Your task to perform on an android device: Go to calendar. Show me events next week Image 0: 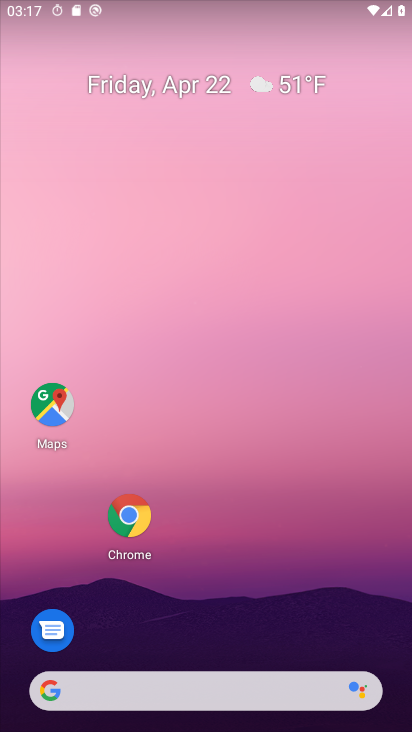
Step 0: click (381, 247)
Your task to perform on an android device: Go to calendar. Show me events next week Image 1: 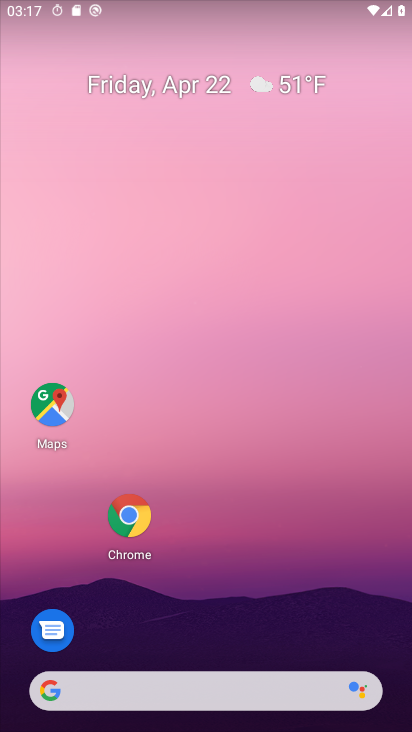
Step 1: drag from (375, 217) to (373, 155)
Your task to perform on an android device: Go to calendar. Show me events next week Image 2: 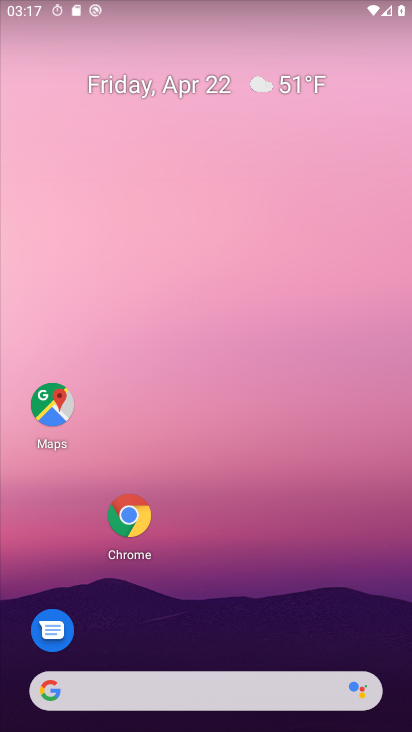
Step 2: click (386, 224)
Your task to perform on an android device: Go to calendar. Show me events next week Image 3: 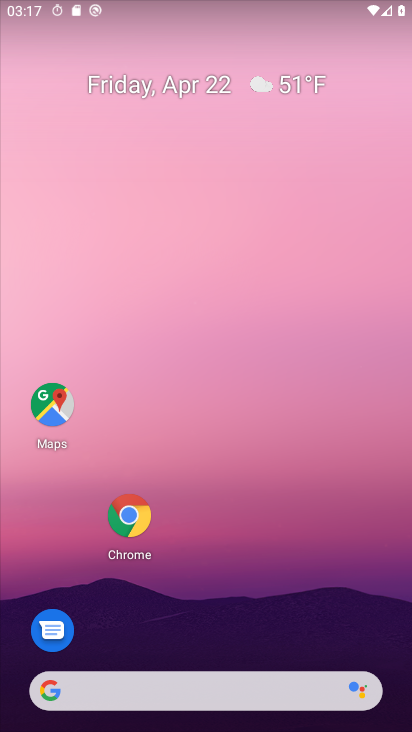
Step 3: drag from (392, 498) to (346, 56)
Your task to perform on an android device: Go to calendar. Show me events next week Image 4: 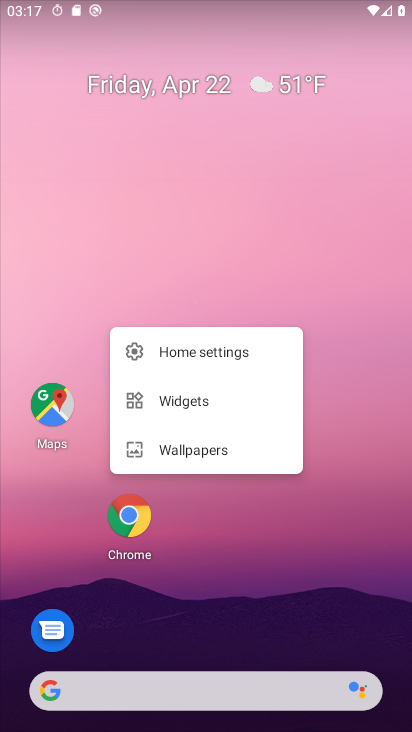
Step 4: click (380, 558)
Your task to perform on an android device: Go to calendar. Show me events next week Image 5: 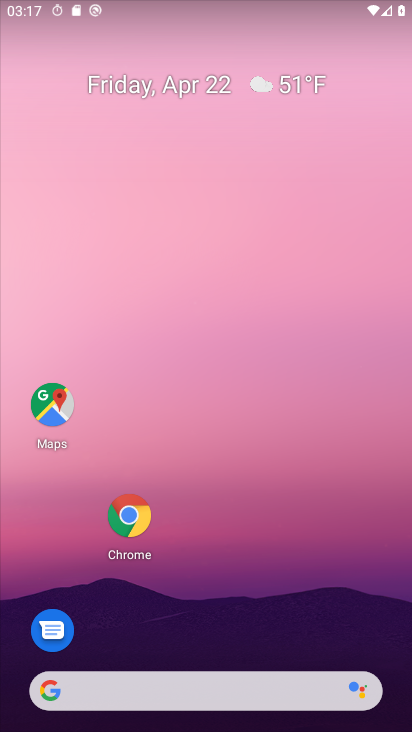
Step 5: drag from (391, 312) to (386, 61)
Your task to perform on an android device: Go to calendar. Show me events next week Image 6: 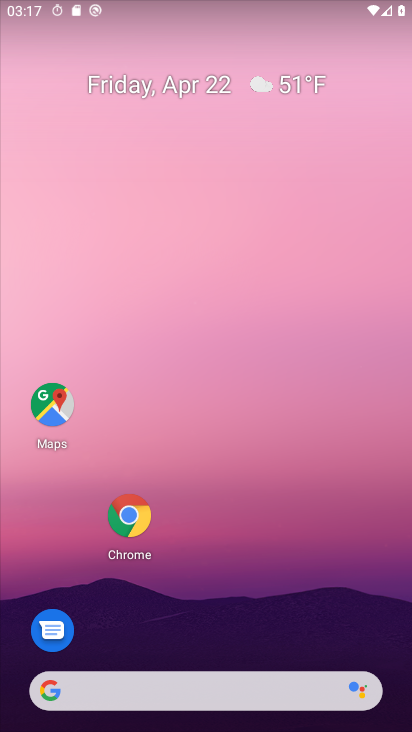
Step 6: drag from (404, 373) to (385, 42)
Your task to perform on an android device: Go to calendar. Show me events next week Image 7: 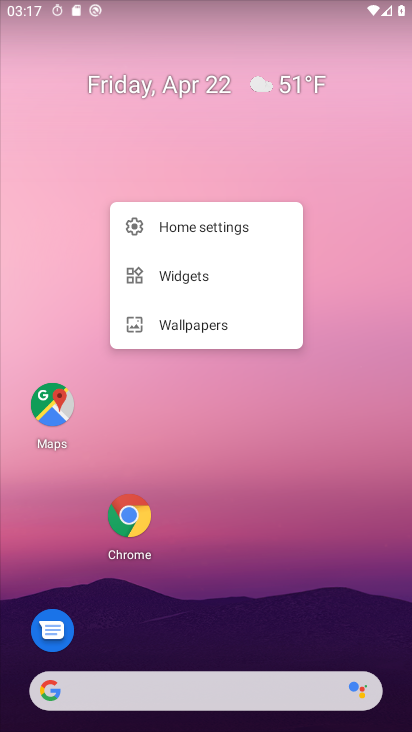
Step 7: drag from (393, 600) to (397, 88)
Your task to perform on an android device: Go to calendar. Show me events next week Image 8: 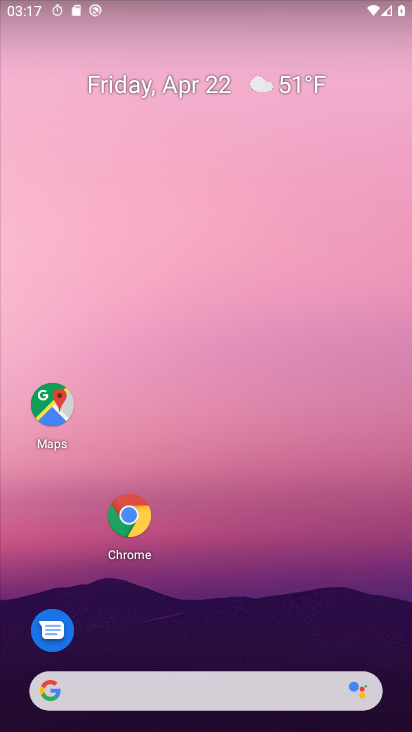
Step 8: drag from (396, 614) to (357, 46)
Your task to perform on an android device: Go to calendar. Show me events next week Image 9: 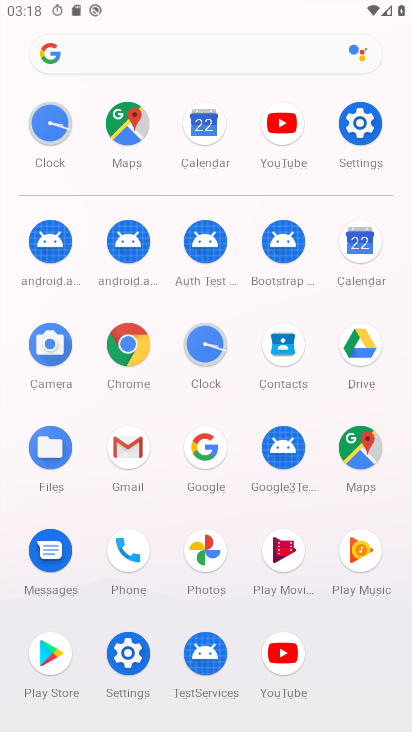
Step 9: click (342, 247)
Your task to perform on an android device: Go to calendar. Show me events next week Image 10: 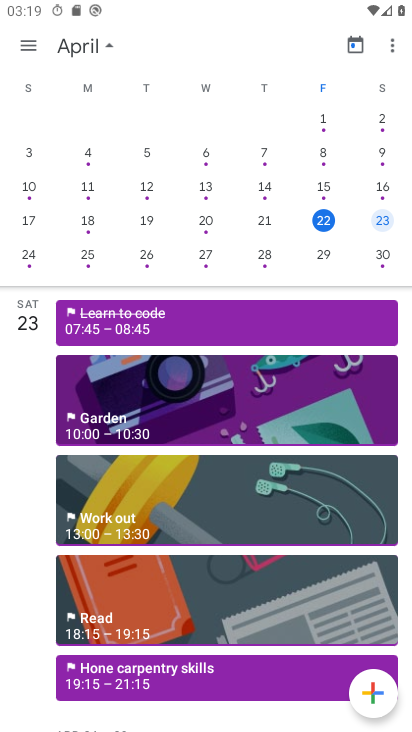
Step 10: click (205, 255)
Your task to perform on an android device: Go to calendar. Show me events next week Image 11: 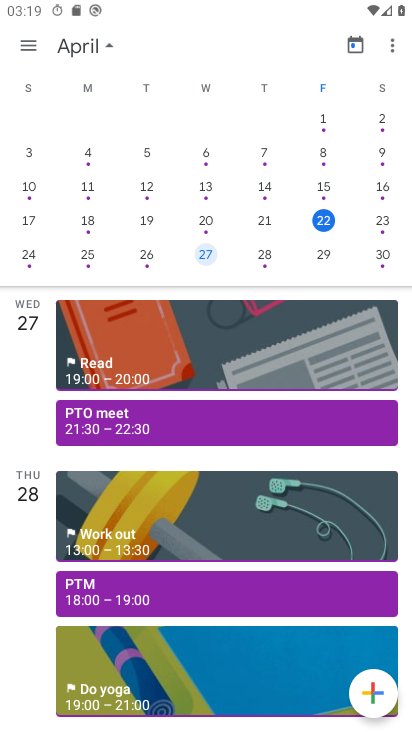
Step 11: click (32, 50)
Your task to perform on an android device: Go to calendar. Show me events next week Image 12: 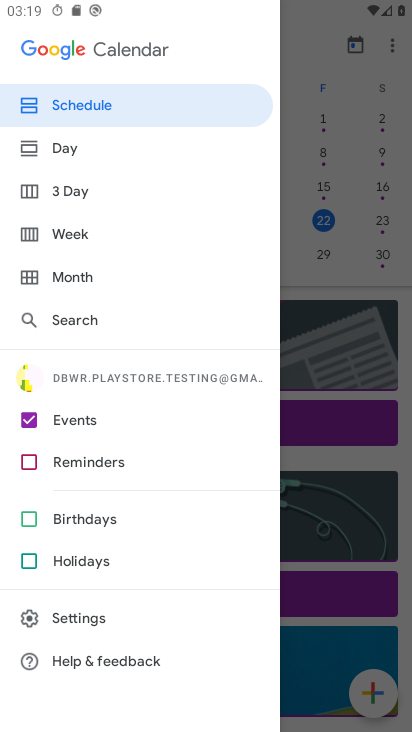
Step 12: click (66, 228)
Your task to perform on an android device: Go to calendar. Show me events next week Image 13: 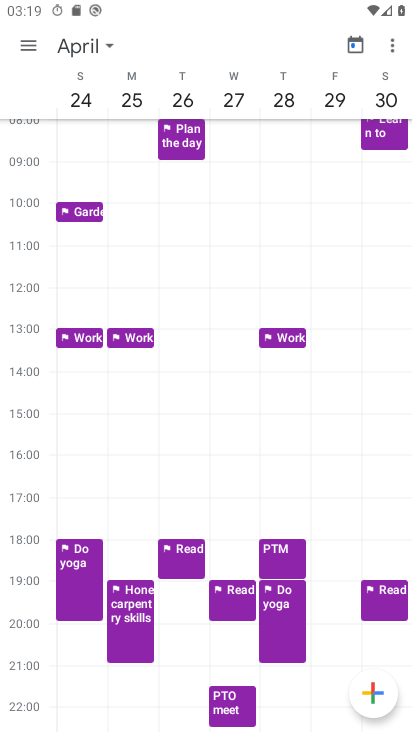
Step 13: task complete